Your task to perform on an android device: turn on wifi Image 0: 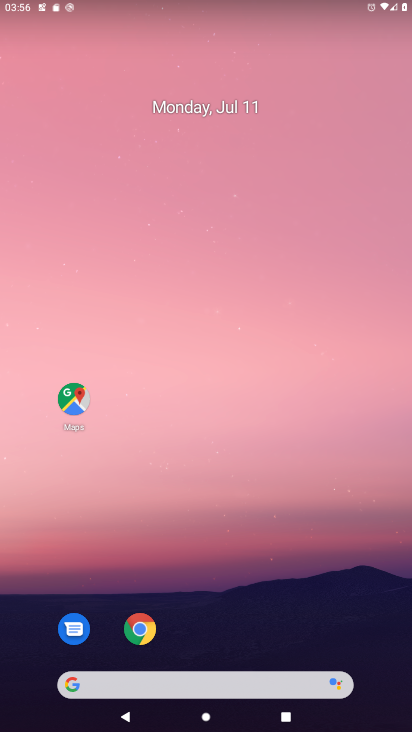
Step 0: drag from (62, 5) to (151, 648)
Your task to perform on an android device: turn on wifi Image 1: 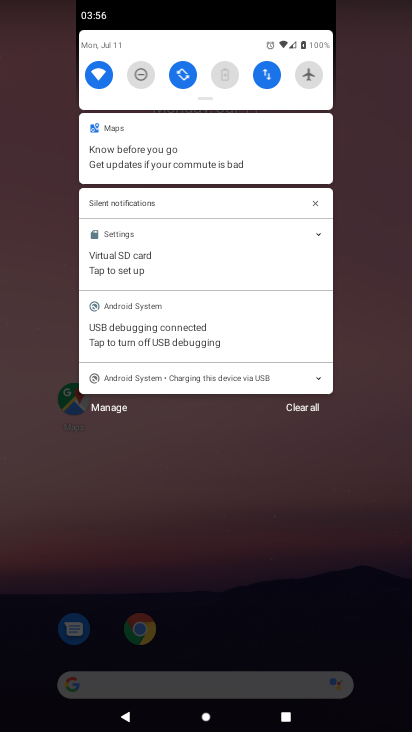
Step 1: task complete